Your task to perform on an android device: move a message to another label in the gmail app Image 0: 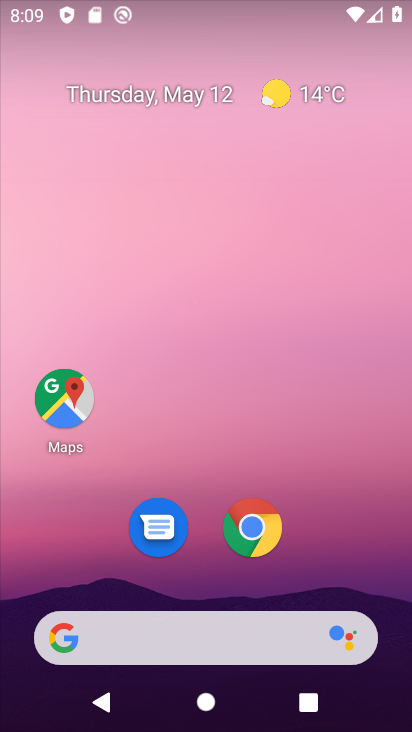
Step 0: drag from (324, 418) to (380, 119)
Your task to perform on an android device: move a message to another label in the gmail app Image 1: 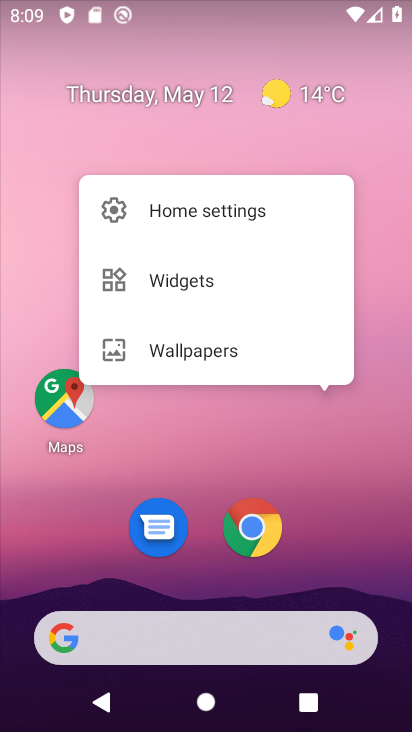
Step 1: drag from (356, 232) to (392, 152)
Your task to perform on an android device: move a message to another label in the gmail app Image 2: 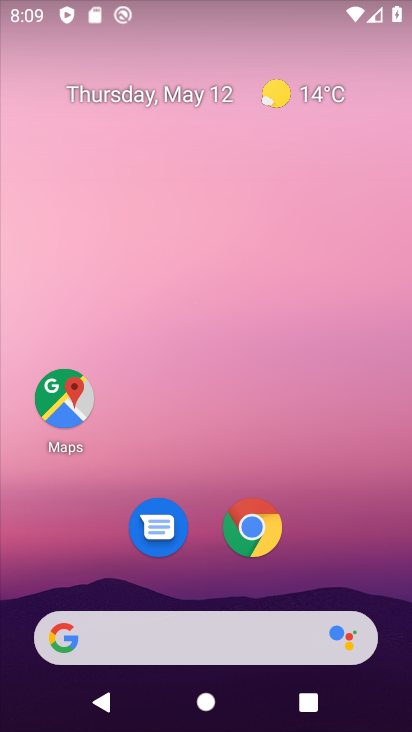
Step 2: click (404, 272)
Your task to perform on an android device: move a message to another label in the gmail app Image 3: 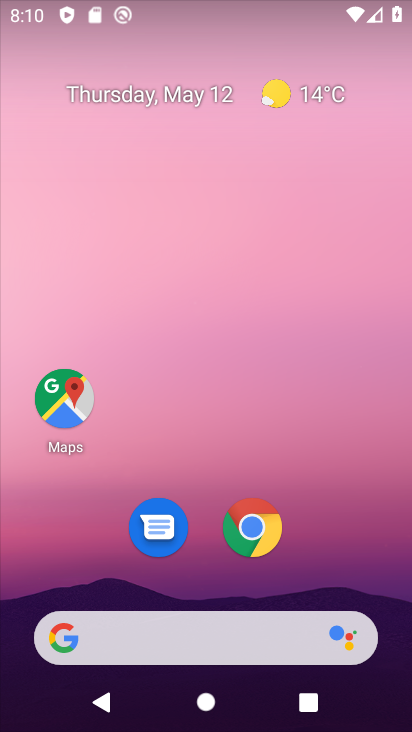
Step 3: drag from (342, 301) to (359, 2)
Your task to perform on an android device: move a message to another label in the gmail app Image 4: 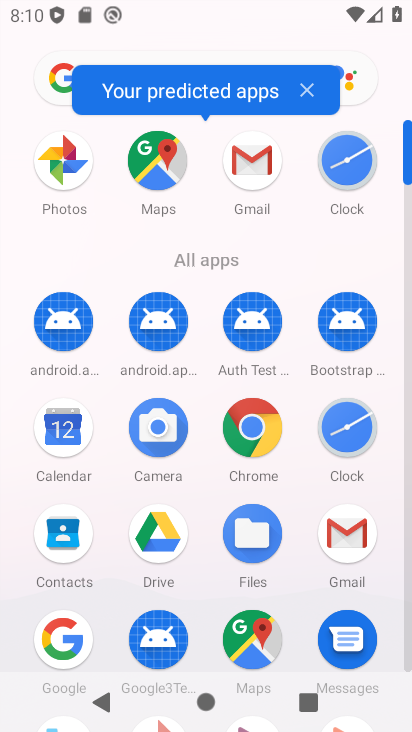
Step 4: click (330, 527)
Your task to perform on an android device: move a message to another label in the gmail app Image 5: 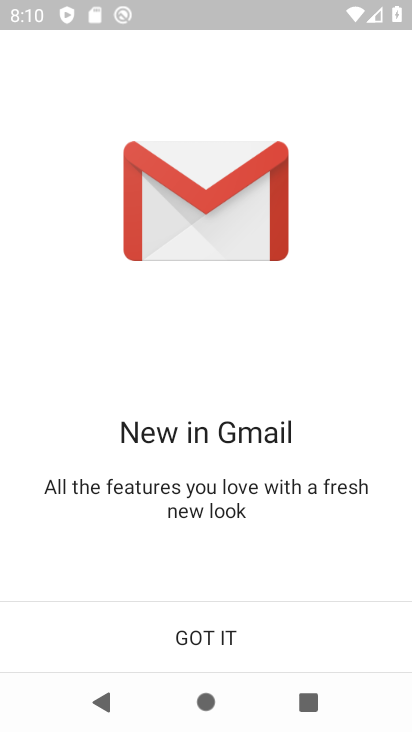
Step 5: click (213, 638)
Your task to perform on an android device: move a message to another label in the gmail app Image 6: 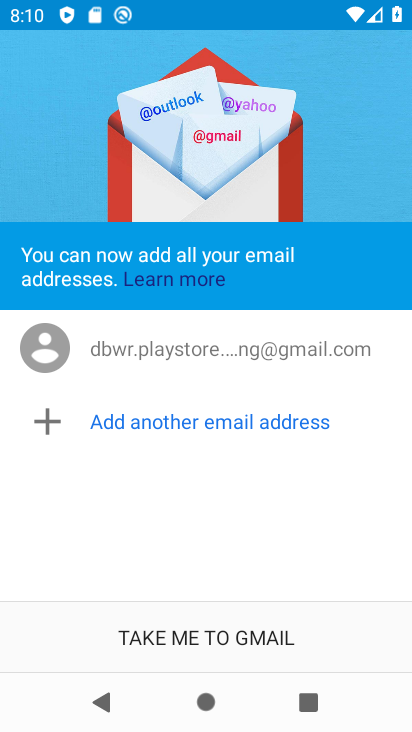
Step 6: click (220, 620)
Your task to perform on an android device: move a message to another label in the gmail app Image 7: 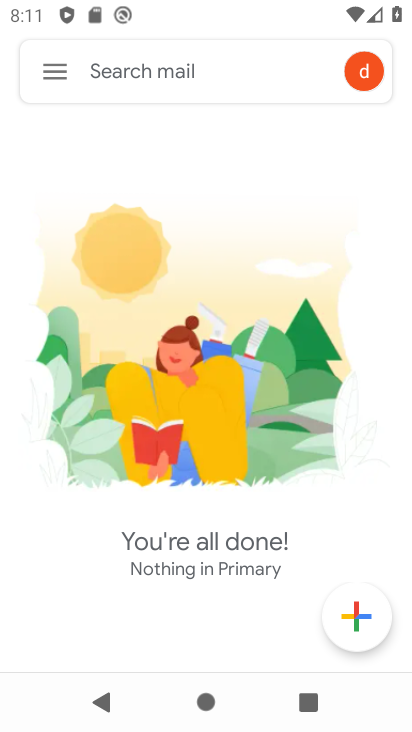
Step 7: click (61, 82)
Your task to perform on an android device: move a message to another label in the gmail app Image 8: 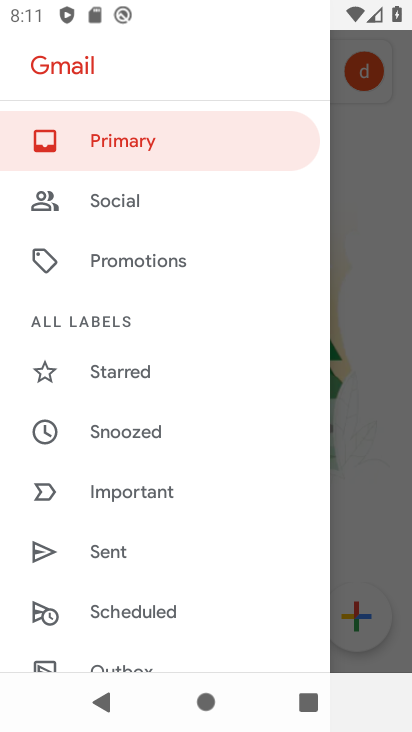
Step 8: drag from (132, 554) to (136, 304)
Your task to perform on an android device: move a message to another label in the gmail app Image 9: 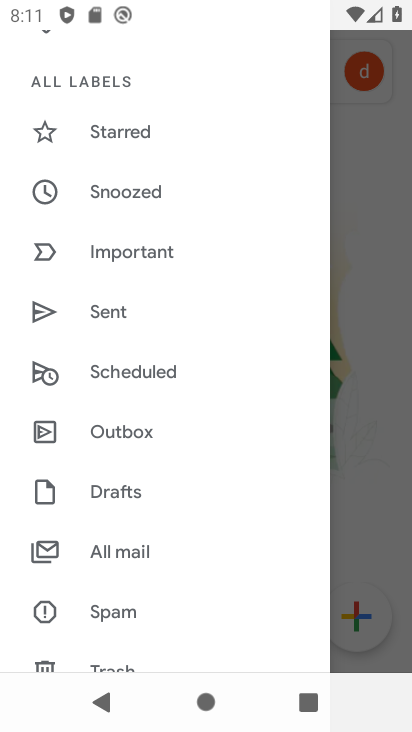
Step 9: click (136, 543)
Your task to perform on an android device: move a message to another label in the gmail app Image 10: 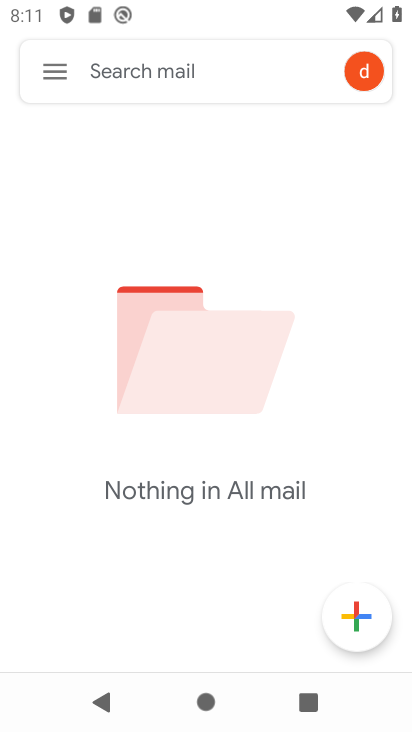
Step 10: task complete